Your task to perform on an android device: Clear all items from cart on target. Search for "razer naga" on target, select the first entry, add it to the cart, then select checkout. Image 0: 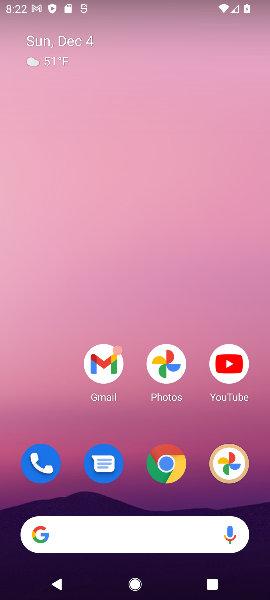
Step 0: click (109, 524)
Your task to perform on an android device: Clear all items from cart on target. Search for "razer naga" on target, select the first entry, add it to the cart, then select checkout. Image 1: 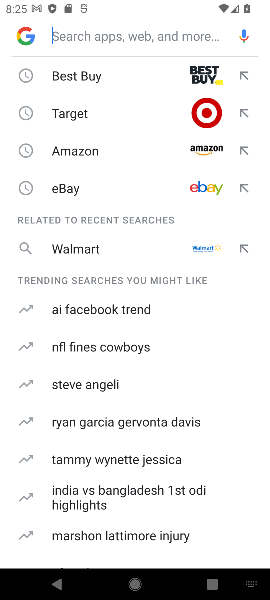
Step 1: click (107, 127)
Your task to perform on an android device: Clear all items from cart on target. Search for "razer naga" on target, select the first entry, add it to the cart, then select checkout. Image 2: 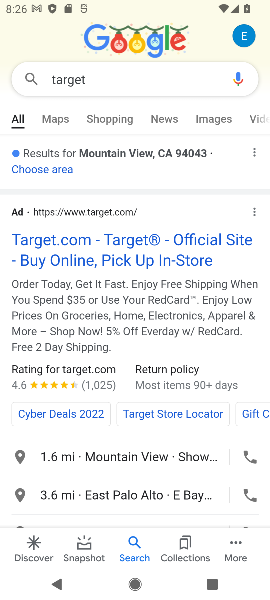
Step 2: task complete